Your task to perform on an android device: open a new tab in the chrome app Image 0: 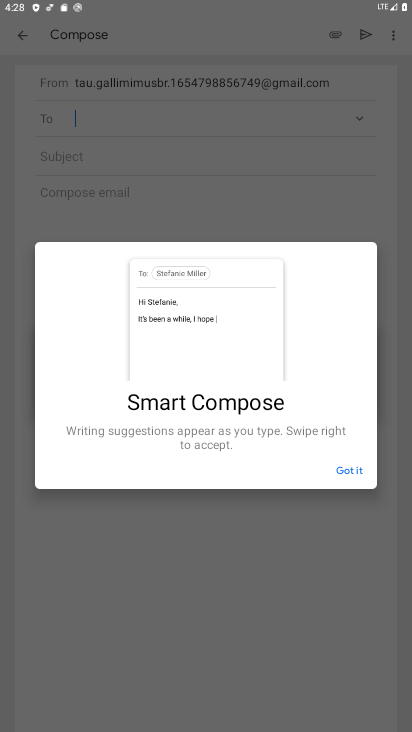
Step 0: click (346, 473)
Your task to perform on an android device: open a new tab in the chrome app Image 1: 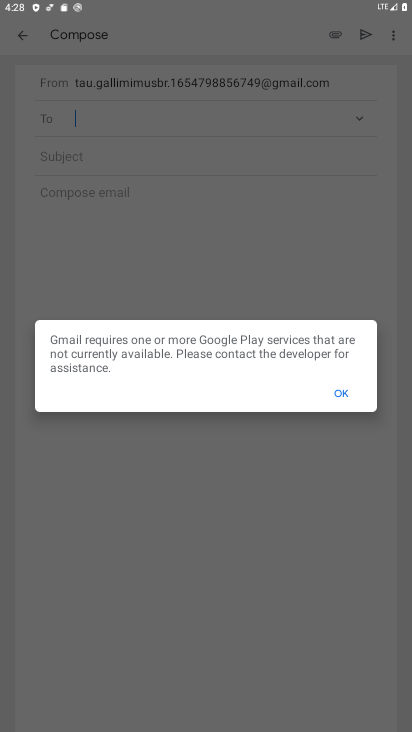
Step 1: press home button
Your task to perform on an android device: open a new tab in the chrome app Image 2: 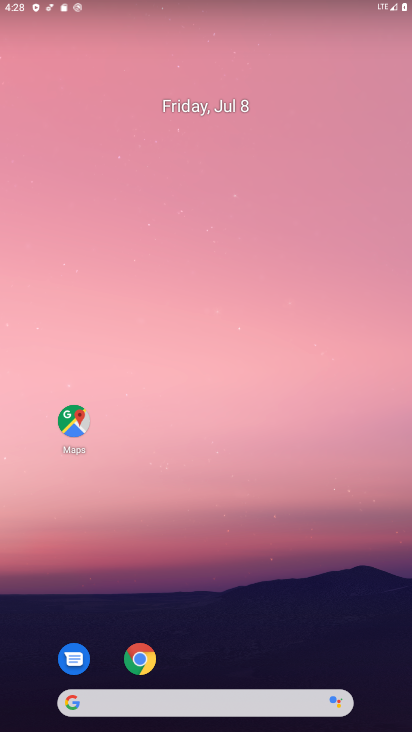
Step 2: drag from (298, 695) to (284, 7)
Your task to perform on an android device: open a new tab in the chrome app Image 3: 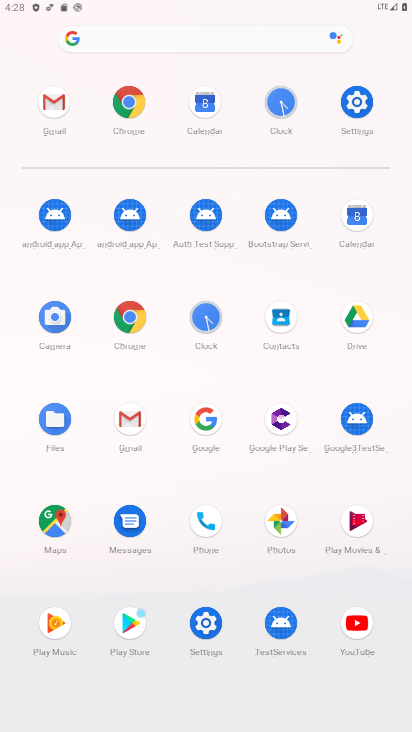
Step 3: click (145, 133)
Your task to perform on an android device: open a new tab in the chrome app Image 4: 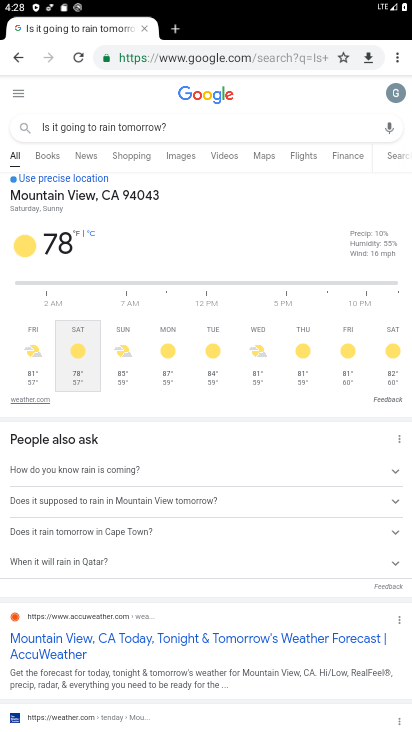
Step 4: click (175, 35)
Your task to perform on an android device: open a new tab in the chrome app Image 5: 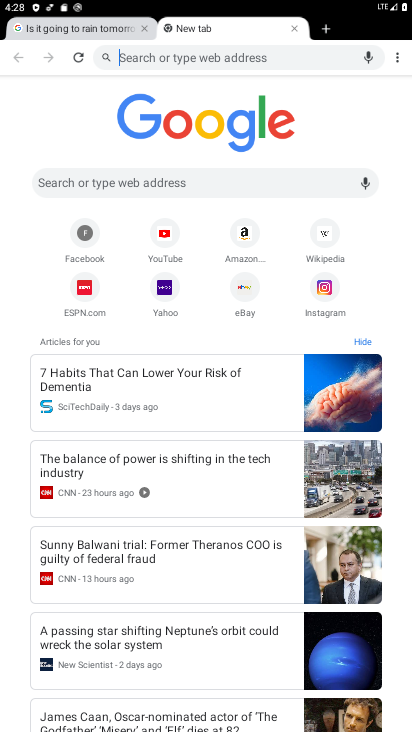
Step 5: task complete